Your task to perform on an android device: turn off priority inbox in the gmail app Image 0: 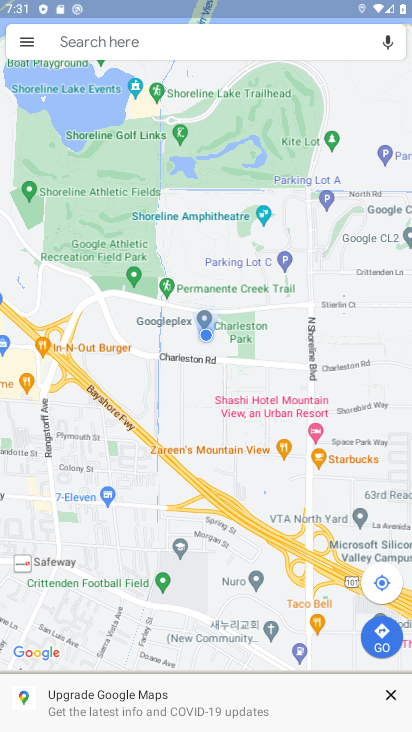
Step 0: press home button
Your task to perform on an android device: turn off priority inbox in the gmail app Image 1: 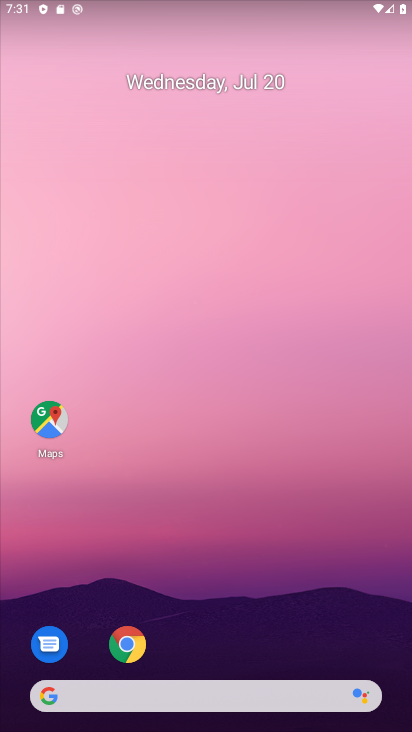
Step 1: drag from (181, 685) to (175, 322)
Your task to perform on an android device: turn off priority inbox in the gmail app Image 2: 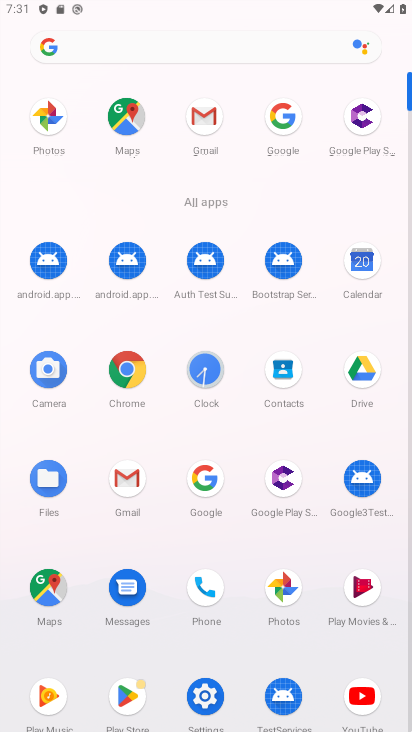
Step 2: click (123, 485)
Your task to perform on an android device: turn off priority inbox in the gmail app Image 3: 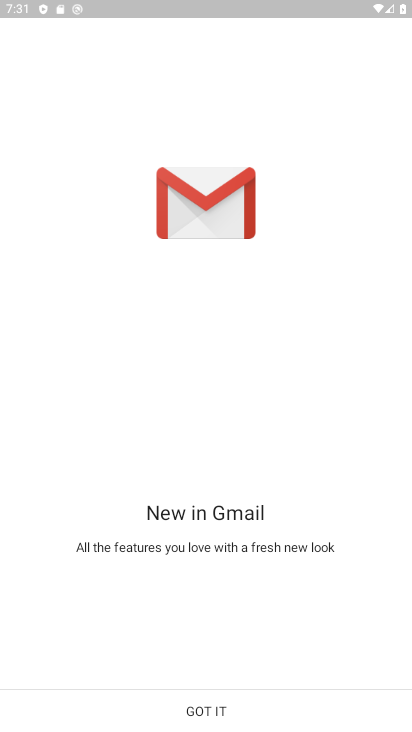
Step 3: click (206, 714)
Your task to perform on an android device: turn off priority inbox in the gmail app Image 4: 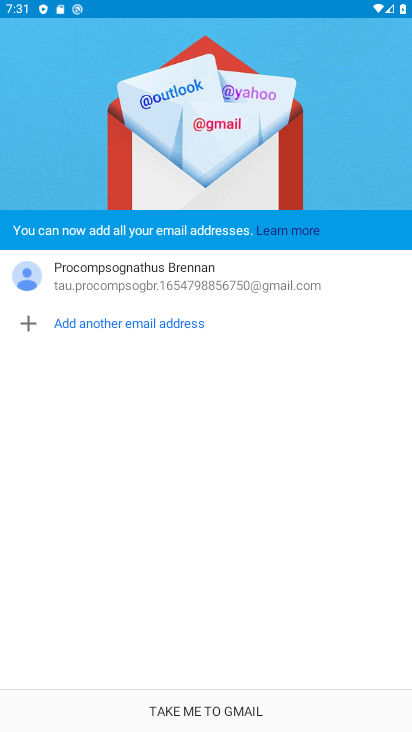
Step 4: click (206, 706)
Your task to perform on an android device: turn off priority inbox in the gmail app Image 5: 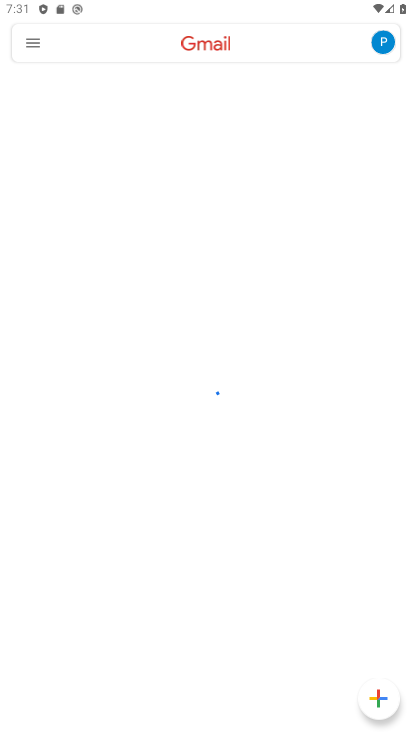
Step 5: click (26, 46)
Your task to perform on an android device: turn off priority inbox in the gmail app Image 6: 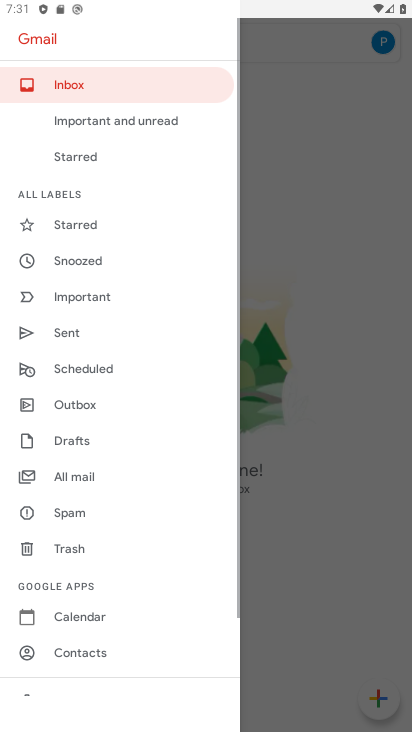
Step 6: click (69, 188)
Your task to perform on an android device: turn off priority inbox in the gmail app Image 7: 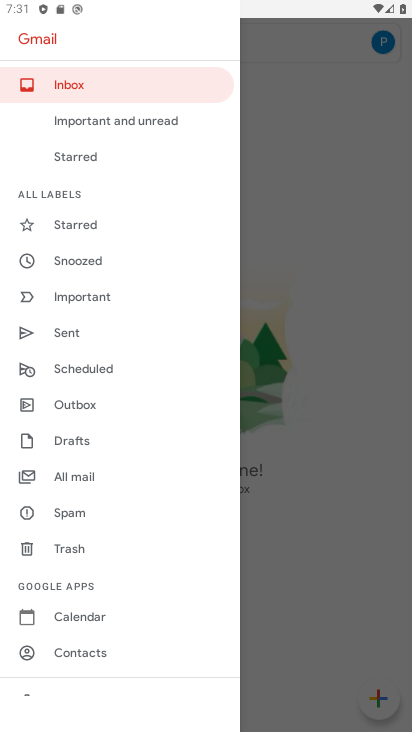
Step 7: drag from (80, 620) to (110, 339)
Your task to perform on an android device: turn off priority inbox in the gmail app Image 8: 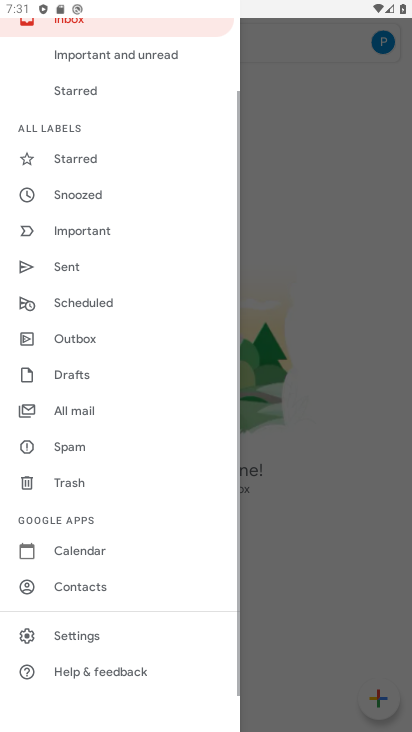
Step 8: click (81, 637)
Your task to perform on an android device: turn off priority inbox in the gmail app Image 9: 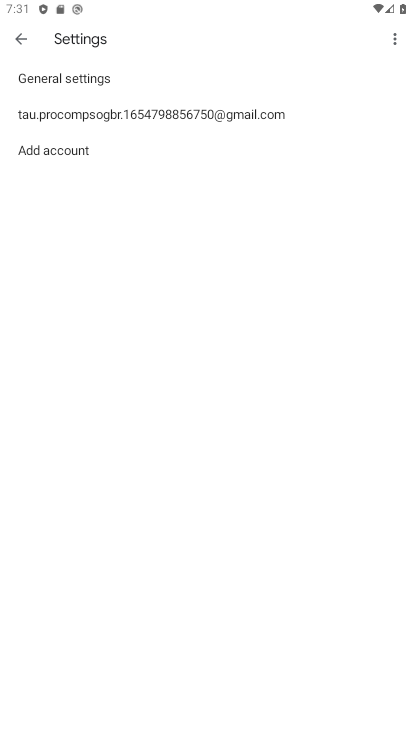
Step 9: click (75, 113)
Your task to perform on an android device: turn off priority inbox in the gmail app Image 10: 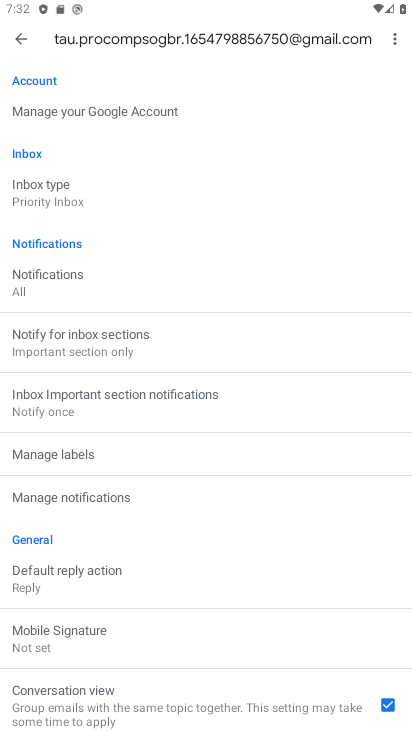
Step 10: click (33, 188)
Your task to perform on an android device: turn off priority inbox in the gmail app Image 11: 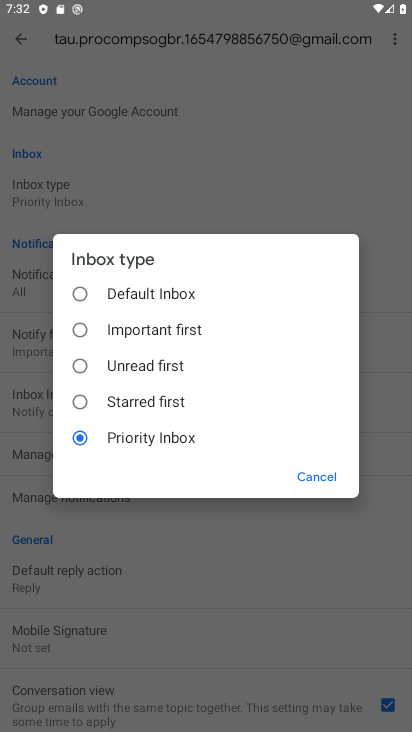
Step 11: click (126, 325)
Your task to perform on an android device: turn off priority inbox in the gmail app Image 12: 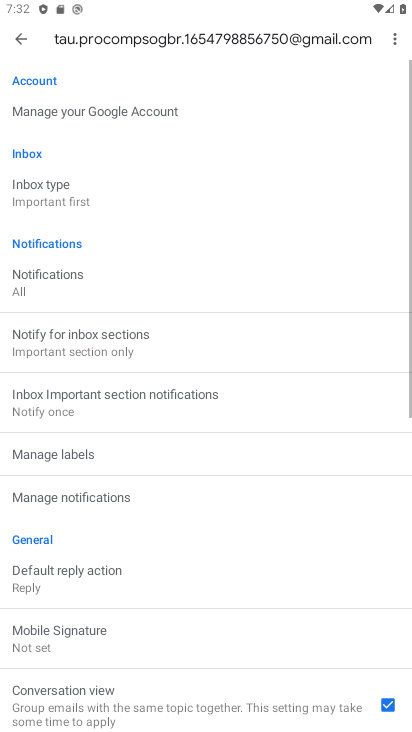
Step 12: task complete